Your task to perform on an android device: Search for seafood restaurants on Google Maps Image 0: 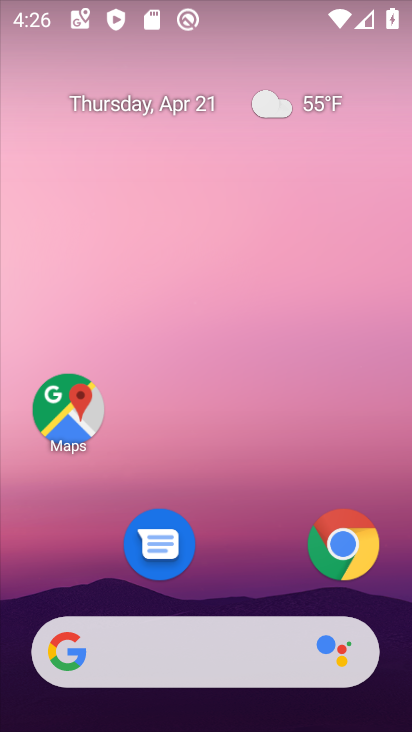
Step 0: drag from (229, 612) to (281, 6)
Your task to perform on an android device: Search for seafood restaurants on Google Maps Image 1: 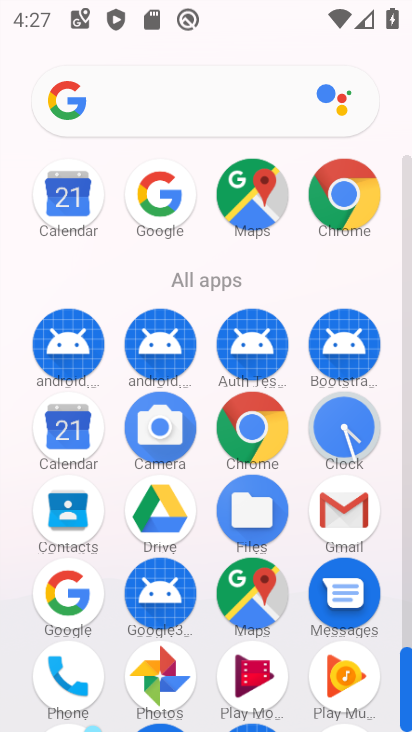
Step 1: drag from (173, 572) to (238, 71)
Your task to perform on an android device: Search for seafood restaurants on Google Maps Image 2: 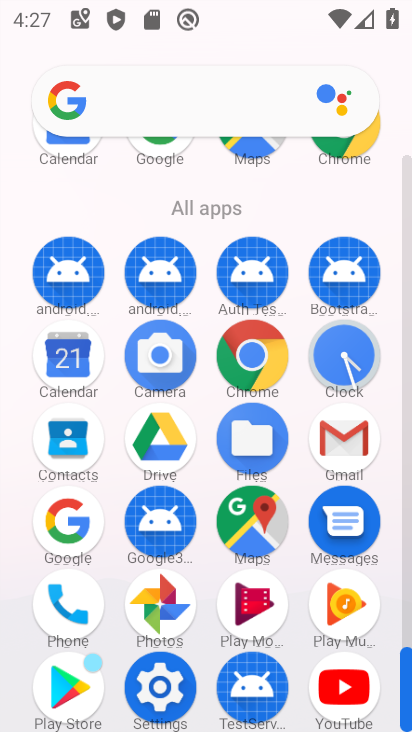
Step 2: drag from (235, 534) to (313, 55)
Your task to perform on an android device: Search for seafood restaurants on Google Maps Image 3: 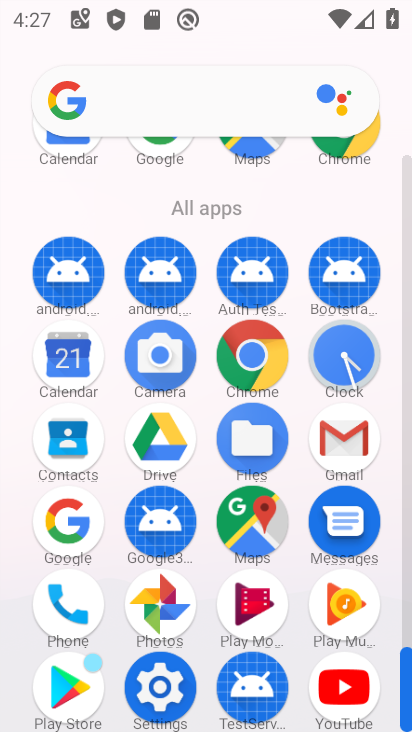
Step 3: click (238, 507)
Your task to perform on an android device: Search for seafood restaurants on Google Maps Image 4: 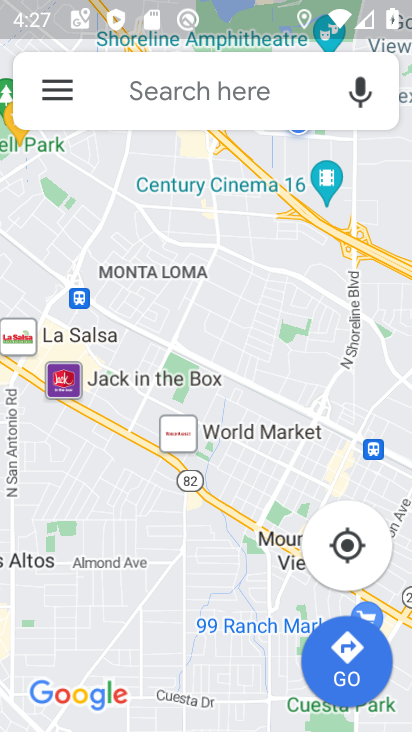
Step 4: click (243, 96)
Your task to perform on an android device: Search for seafood restaurants on Google Maps Image 5: 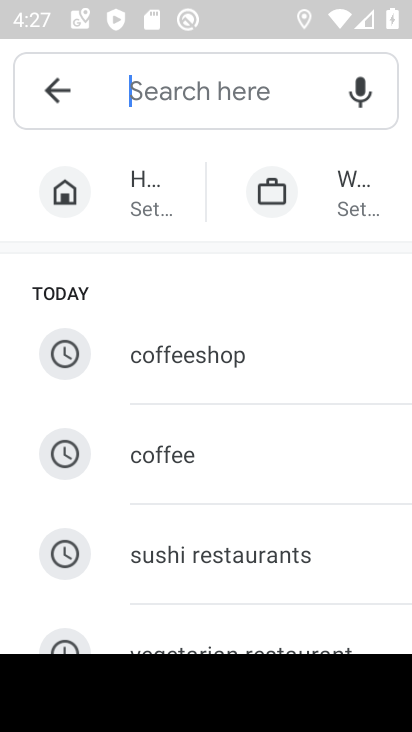
Step 5: drag from (259, 582) to (290, 281)
Your task to perform on an android device: Search for seafood restaurants on Google Maps Image 6: 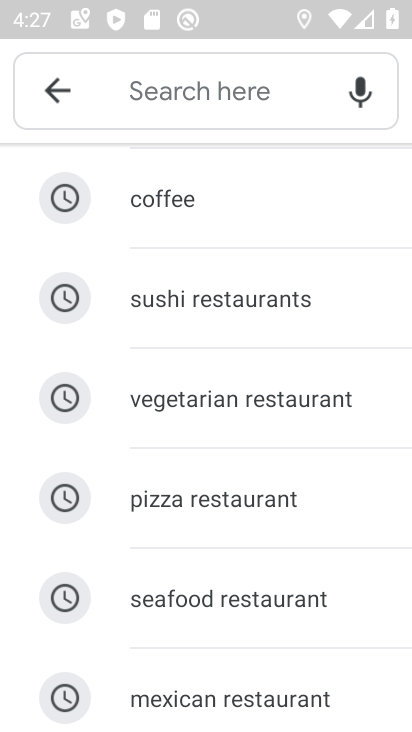
Step 6: click (277, 589)
Your task to perform on an android device: Search for seafood restaurants on Google Maps Image 7: 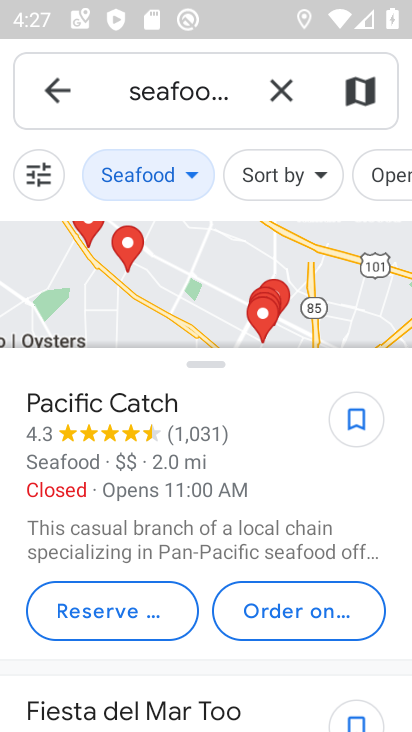
Step 7: task complete